Your task to perform on an android device: empty trash in google photos Image 0: 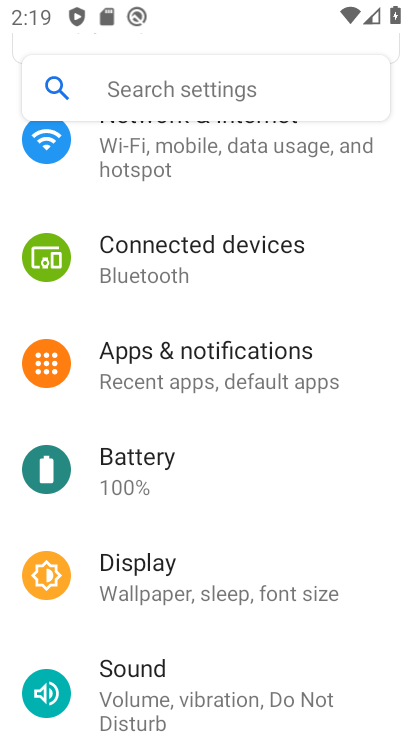
Step 0: press back button
Your task to perform on an android device: empty trash in google photos Image 1: 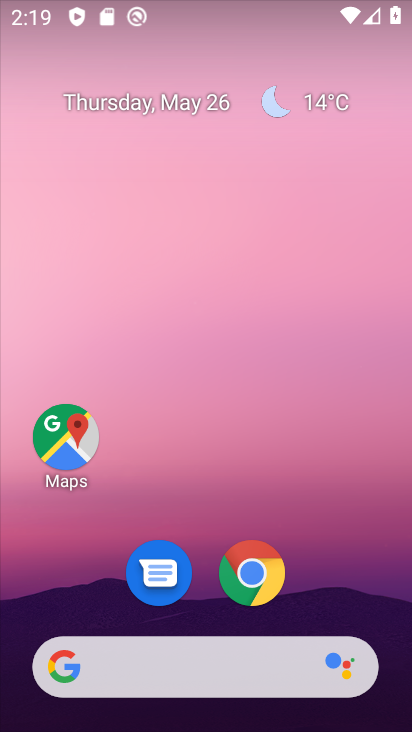
Step 1: drag from (324, 521) to (251, 40)
Your task to perform on an android device: empty trash in google photos Image 2: 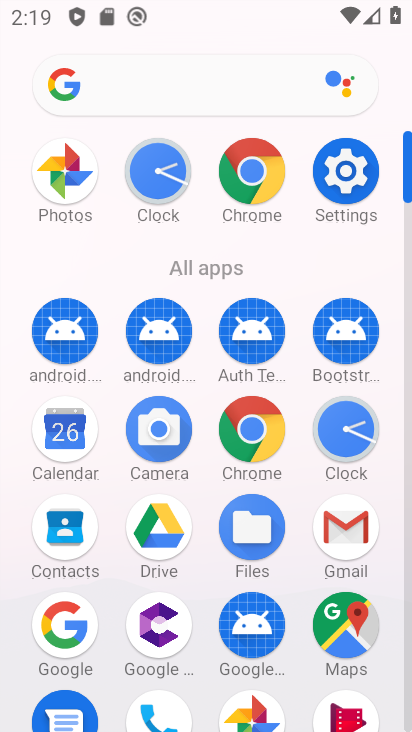
Step 2: drag from (18, 509) to (20, 182)
Your task to perform on an android device: empty trash in google photos Image 3: 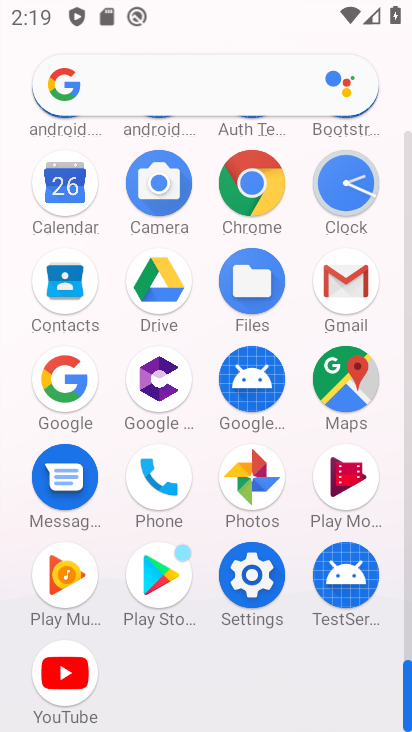
Step 3: click (247, 474)
Your task to perform on an android device: empty trash in google photos Image 4: 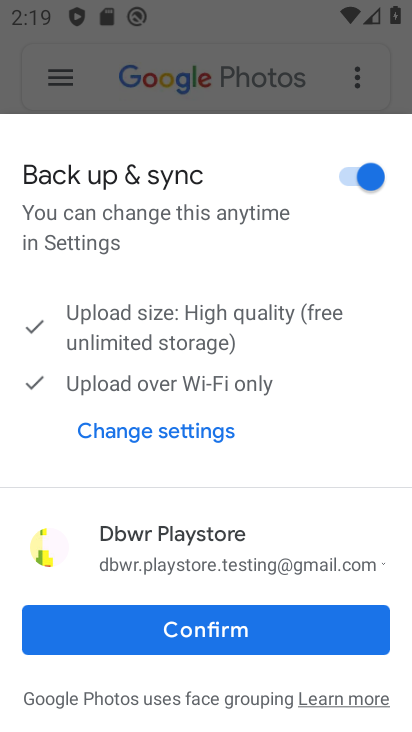
Step 4: click (223, 627)
Your task to perform on an android device: empty trash in google photos Image 5: 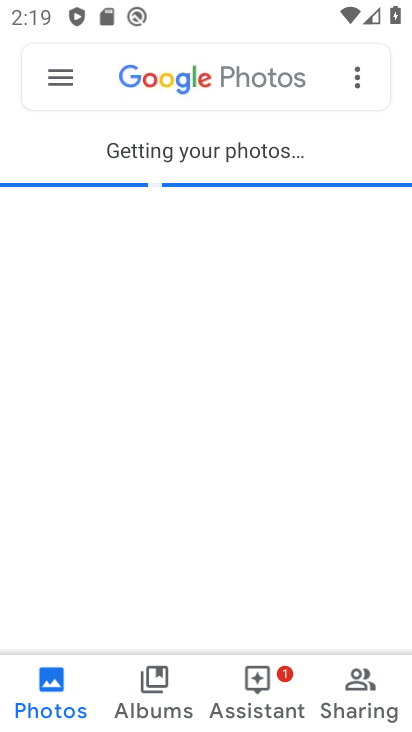
Step 5: click (59, 72)
Your task to perform on an android device: empty trash in google photos Image 6: 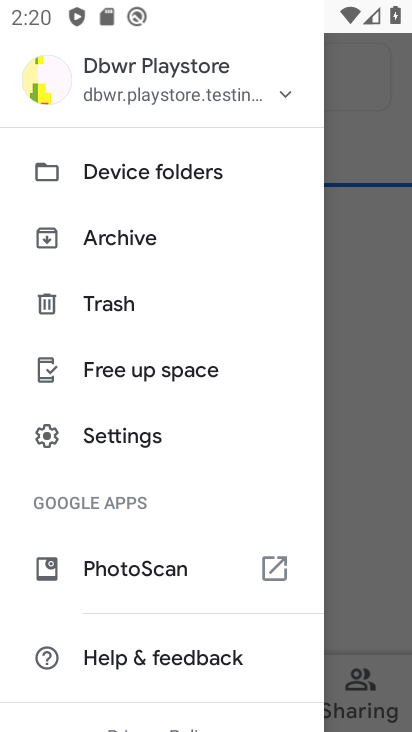
Step 6: click (112, 301)
Your task to perform on an android device: empty trash in google photos Image 7: 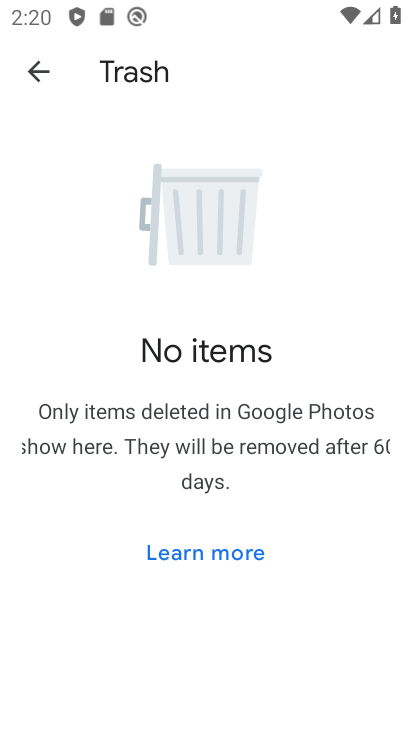
Step 7: task complete